Your task to perform on an android device: toggle notifications settings in the gmail app Image 0: 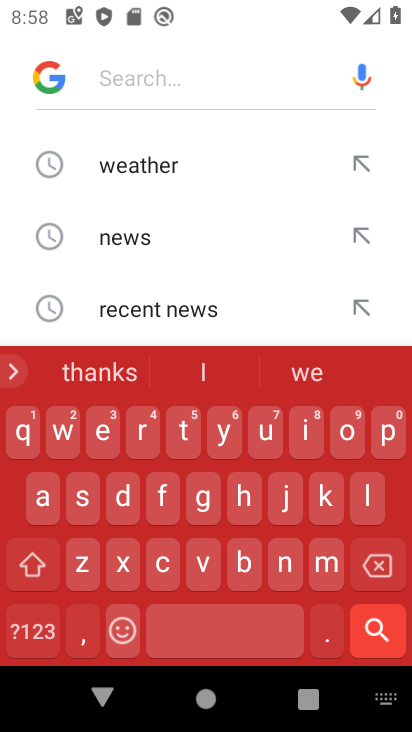
Step 0: press home button
Your task to perform on an android device: toggle notifications settings in the gmail app Image 1: 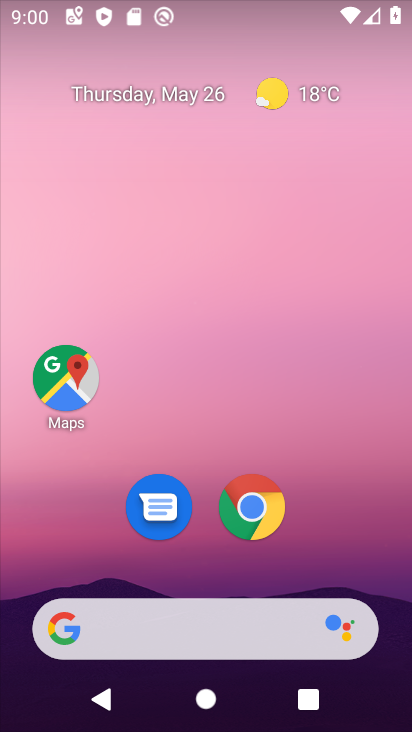
Step 1: drag from (183, 651) to (266, 169)
Your task to perform on an android device: toggle notifications settings in the gmail app Image 2: 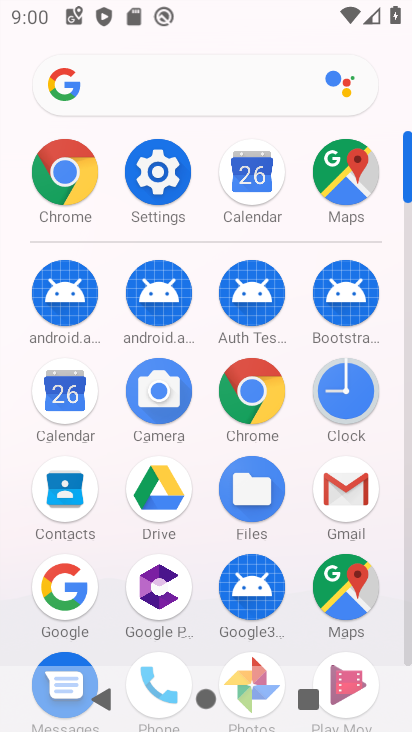
Step 2: click (343, 491)
Your task to perform on an android device: toggle notifications settings in the gmail app Image 3: 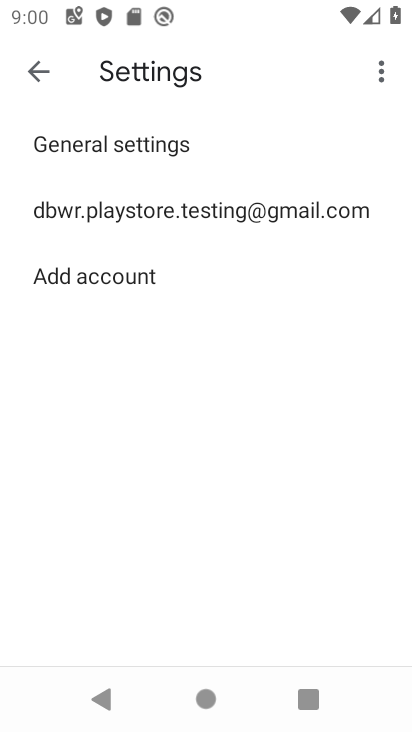
Step 3: click (185, 209)
Your task to perform on an android device: toggle notifications settings in the gmail app Image 4: 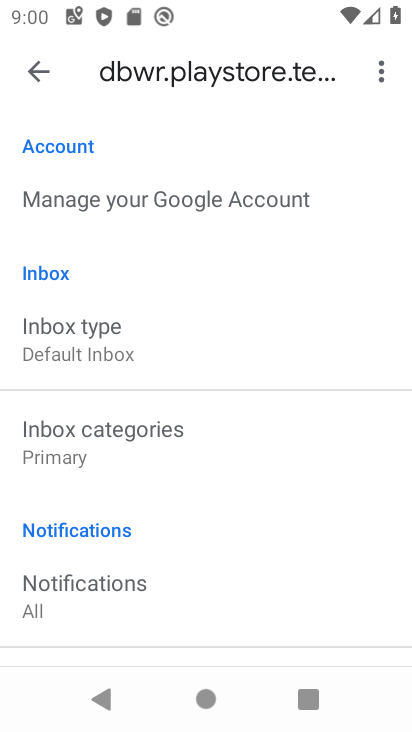
Step 4: click (137, 588)
Your task to perform on an android device: toggle notifications settings in the gmail app Image 5: 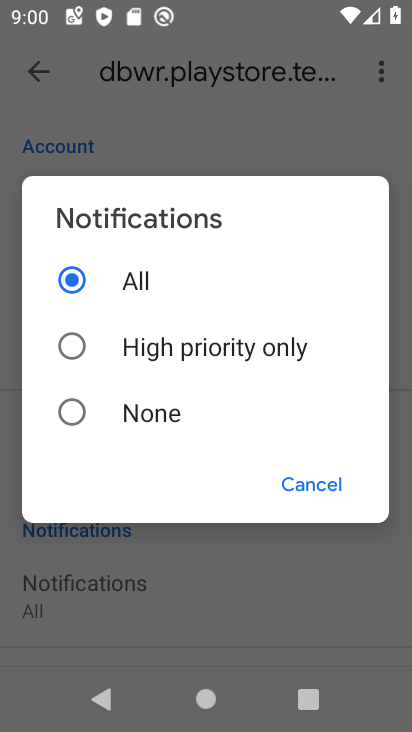
Step 5: task complete